Your task to perform on an android device: find which apps use the phone's location Image 0: 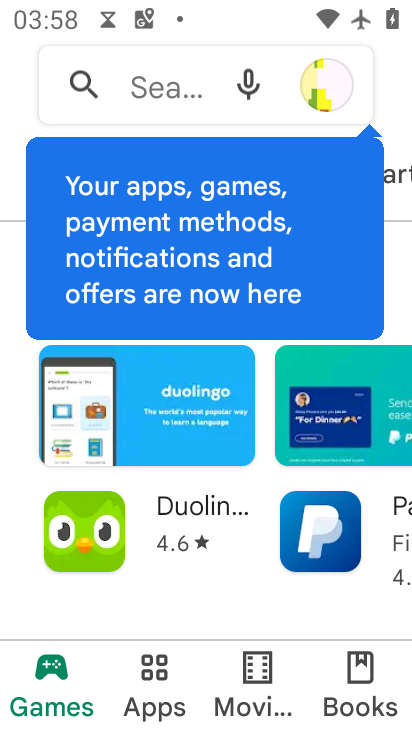
Step 0: press home button
Your task to perform on an android device: find which apps use the phone's location Image 1: 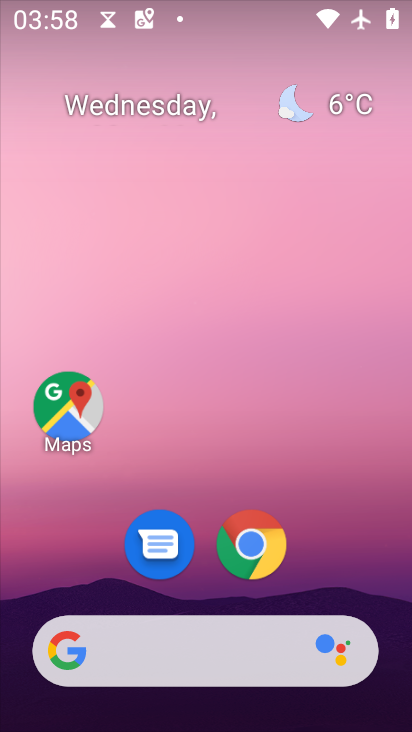
Step 1: drag from (329, 580) to (297, 65)
Your task to perform on an android device: find which apps use the phone's location Image 2: 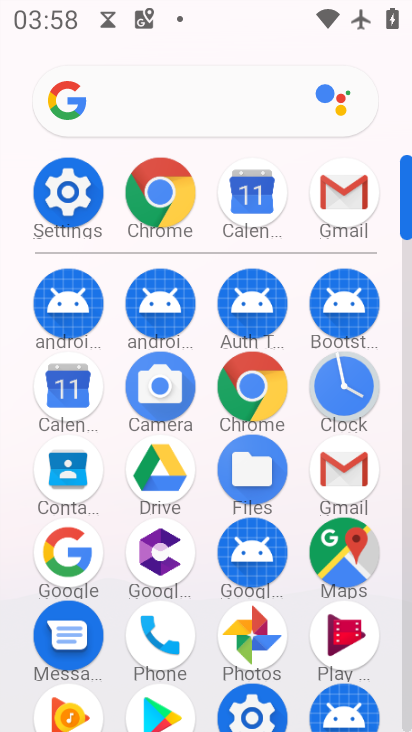
Step 2: click (60, 195)
Your task to perform on an android device: find which apps use the phone's location Image 3: 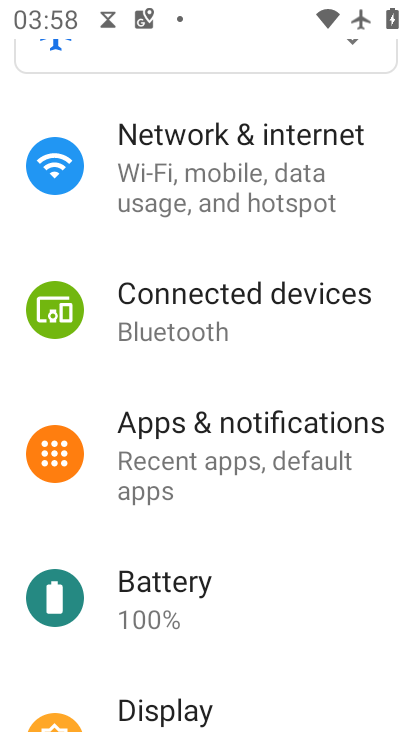
Step 3: drag from (169, 606) to (206, 404)
Your task to perform on an android device: find which apps use the phone's location Image 4: 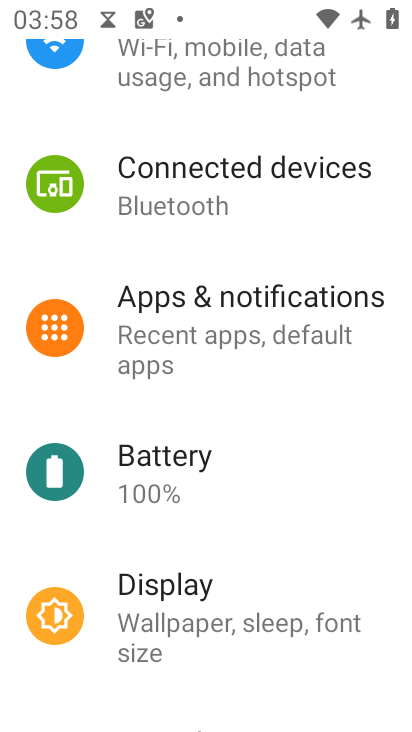
Step 4: drag from (224, 695) to (244, 483)
Your task to perform on an android device: find which apps use the phone's location Image 5: 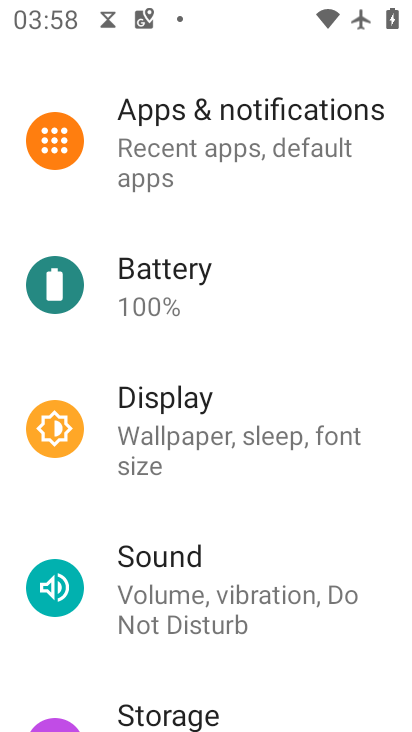
Step 5: drag from (210, 641) to (227, 373)
Your task to perform on an android device: find which apps use the phone's location Image 6: 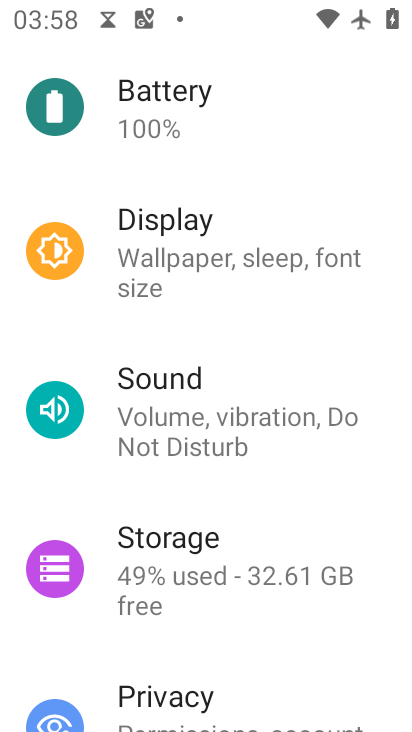
Step 6: drag from (208, 603) to (228, 416)
Your task to perform on an android device: find which apps use the phone's location Image 7: 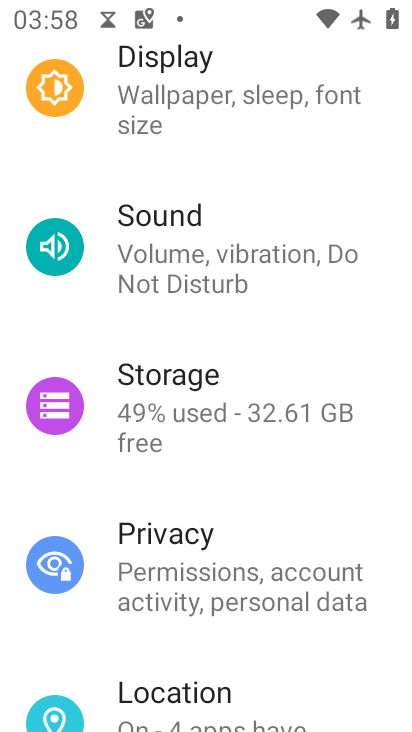
Step 7: drag from (218, 652) to (221, 404)
Your task to perform on an android device: find which apps use the phone's location Image 8: 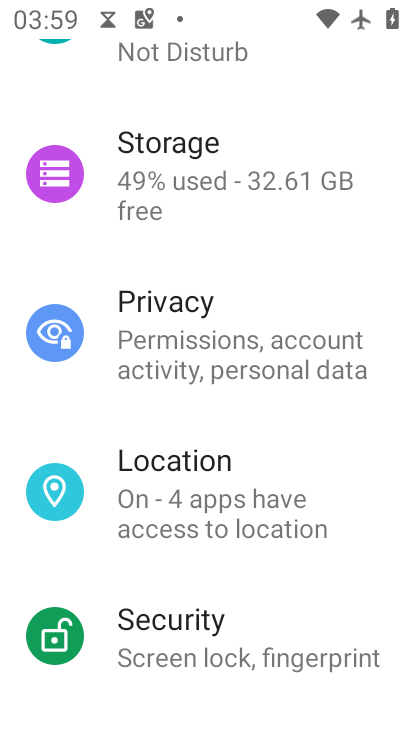
Step 8: click (194, 486)
Your task to perform on an android device: find which apps use the phone's location Image 9: 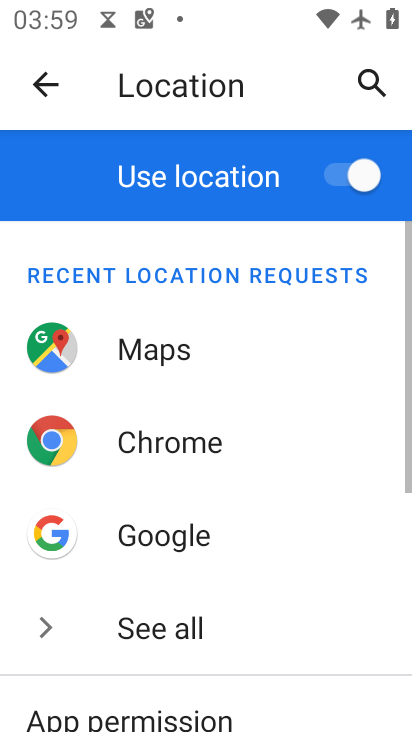
Step 9: drag from (278, 716) to (289, 407)
Your task to perform on an android device: find which apps use the phone's location Image 10: 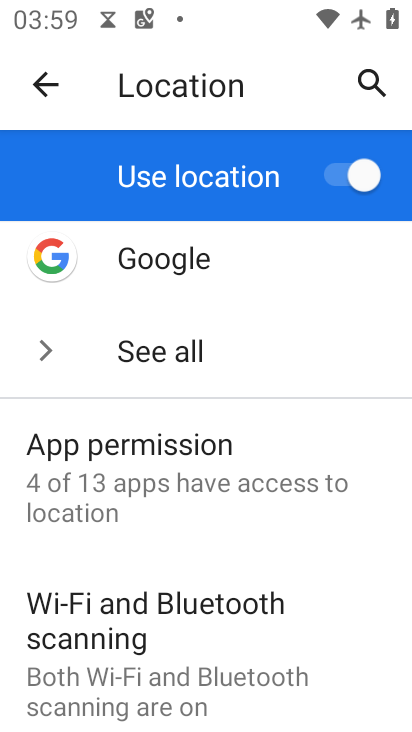
Step 10: click (248, 488)
Your task to perform on an android device: find which apps use the phone's location Image 11: 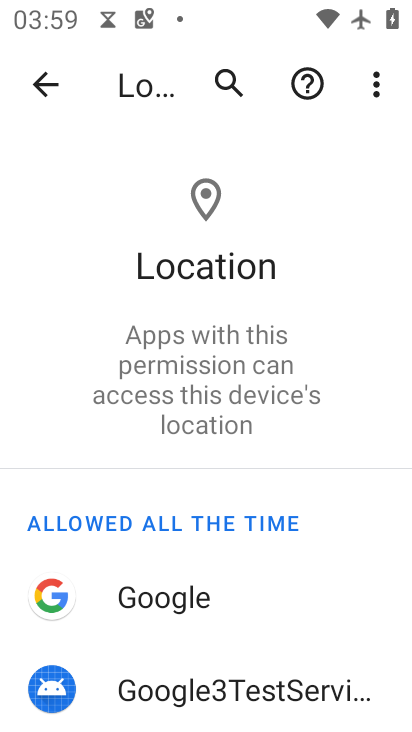
Step 11: task complete